Your task to perform on an android device: check google app version Image 0: 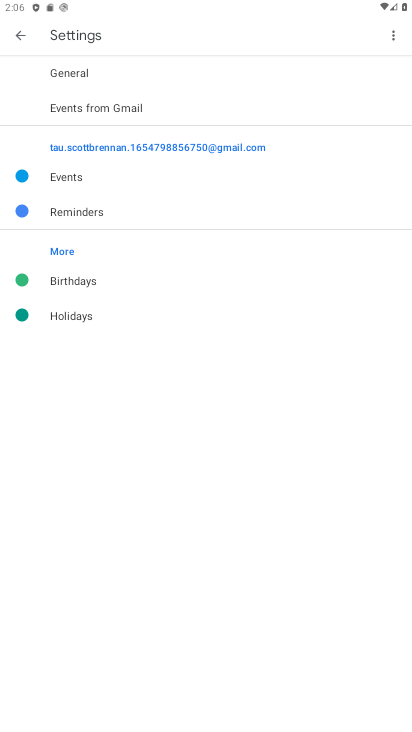
Step 0: press home button
Your task to perform on an android device: check google app version Image 1: 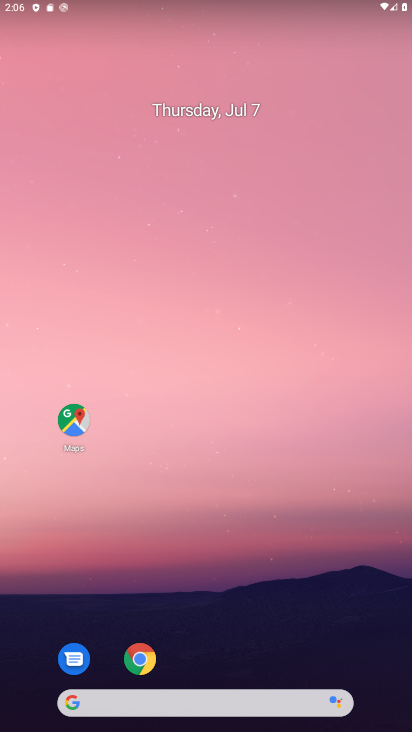
Step 1: drag from (204, 612) to (180, 142)
Your task to perform on an android device: check google app version Image 2: 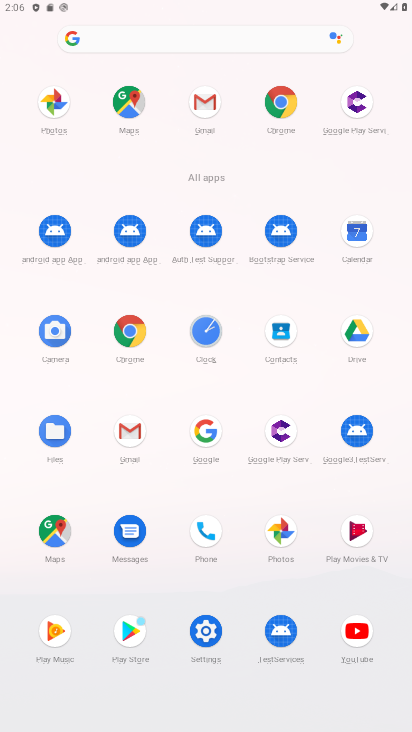
Step 2: click (205, 432)
Your task to perform on an android device: check google app version Image 3: 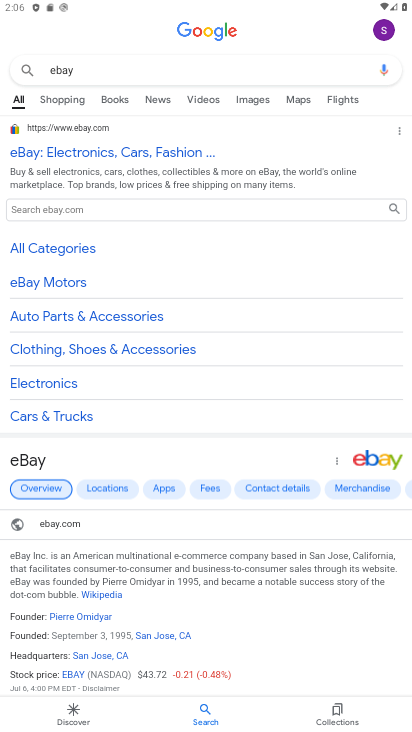
Step 3: click (383, 30)
Your task to perform on an android device: check google app version Image 4: 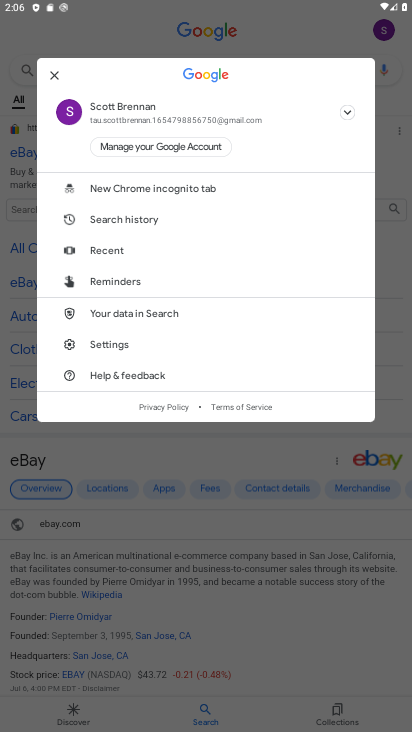
Step 4: click (108, 341)
Your task to perform on an android device: check google app version Image 5: 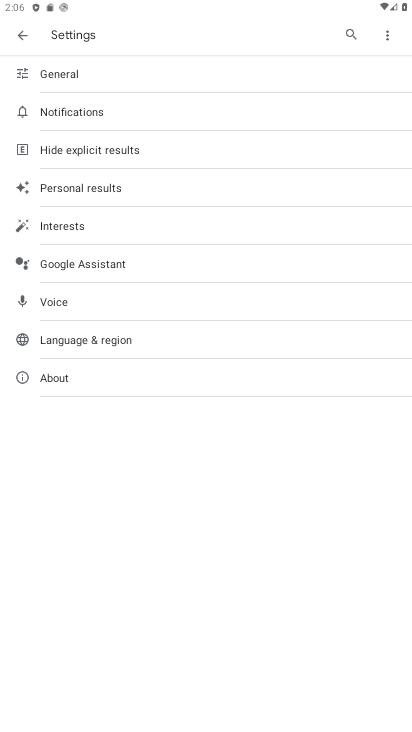
Step 5: click (72, 373)
Your task to perform on an android device: check google app version Image 6: 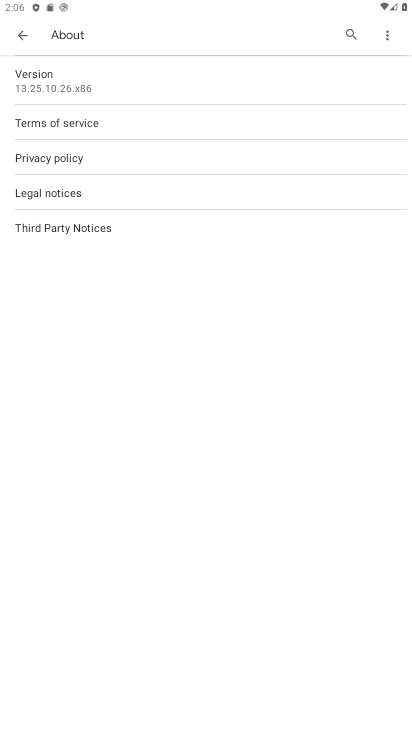
Step 6: task complete